Your task to perform on an android device: Open Android settings Image 0: 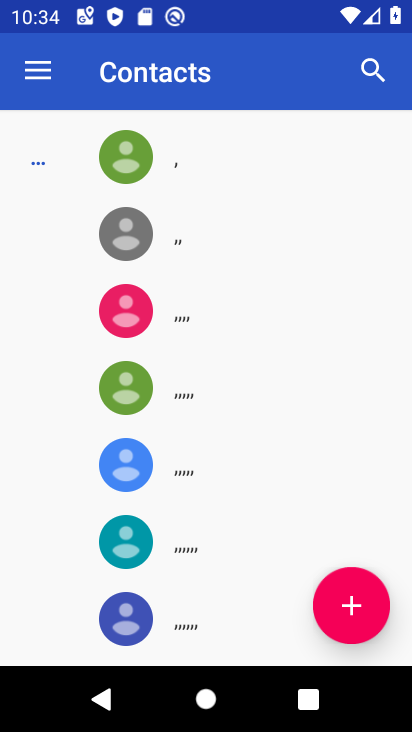
Step 0: press home button
Your task to perform on an android device: Open Android settings Image 1: 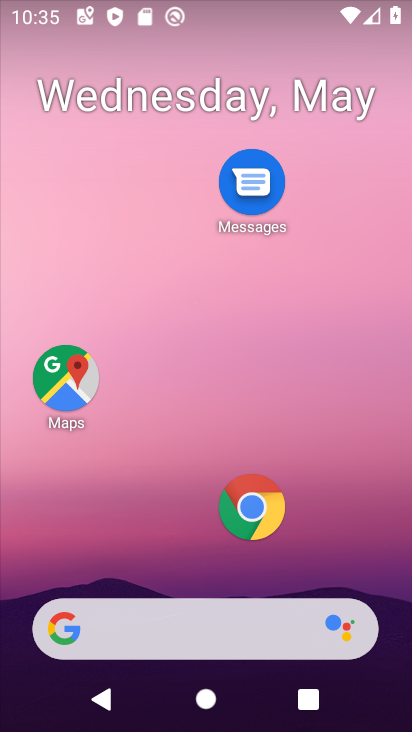
Step 1: drag from (183, 581) to (240, 108)
Your task to perform on an android device: Open Android settings Image 2: 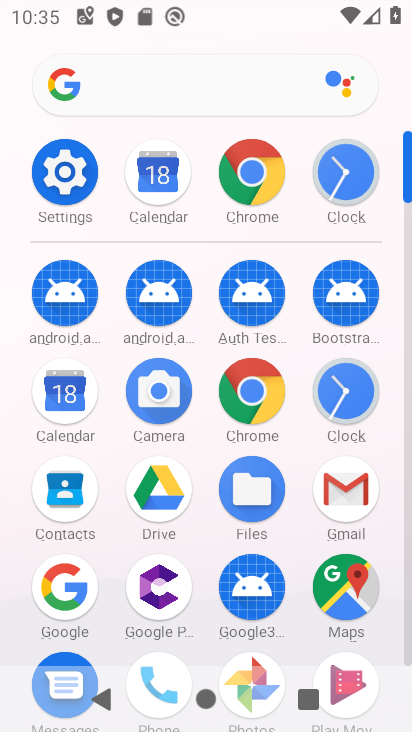
Step 2: click (65, 165)
Your task to perform on an android device: Open Android settings Image 3: 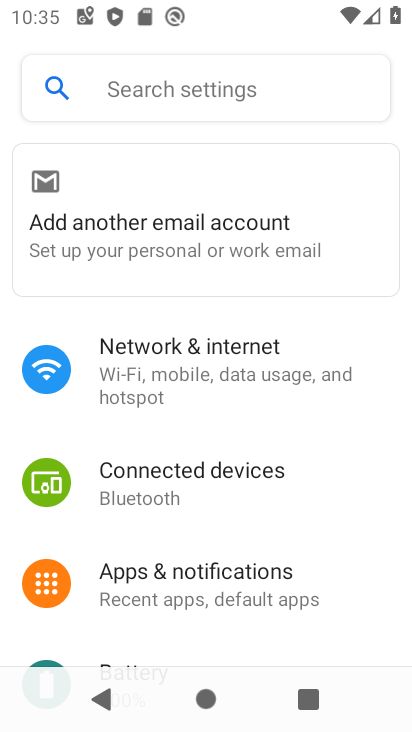
Step 3: drag from (179, 591) to (207, 152)
Your task to perform on an android device: Open Android settings Image 4: 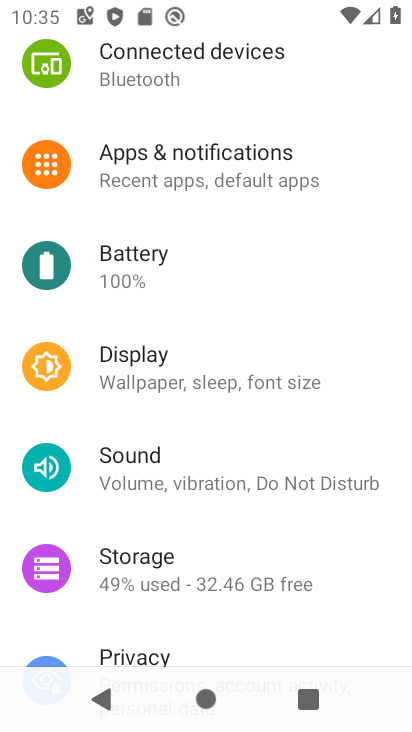
Step 4: drag from (186, 559) to (249, 115)
Your task to perform on an android device: Open Android settings Image 5: 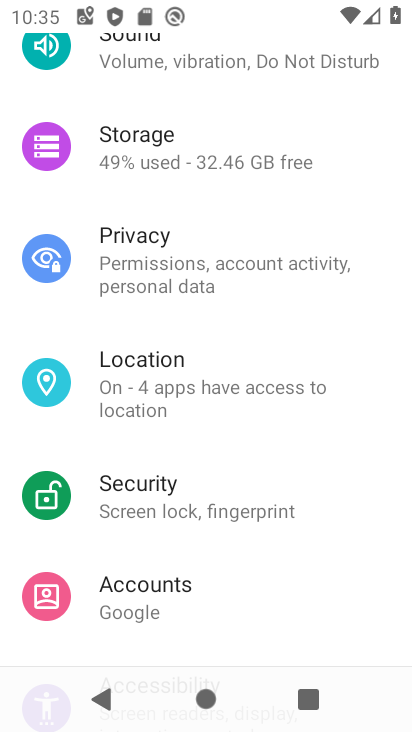
Step 5: drag from (192, 575) to (223, 12)
Your task to perform on an android device: Open Android settings Image 6: 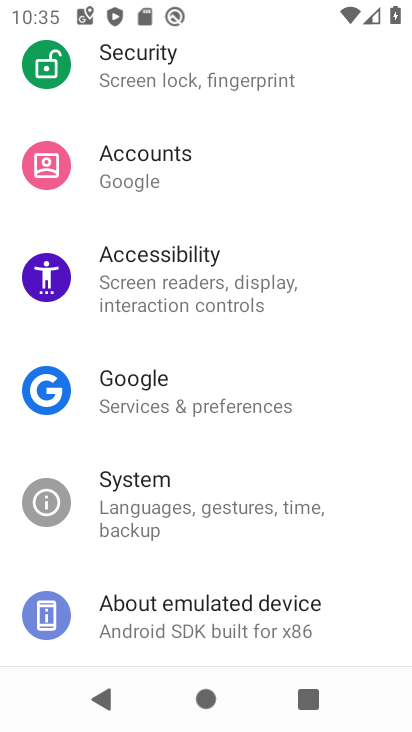
Step 6: drag from (199, 630) to (256, 97)
Your task to perform on an android device: Open Android settings Image 7: 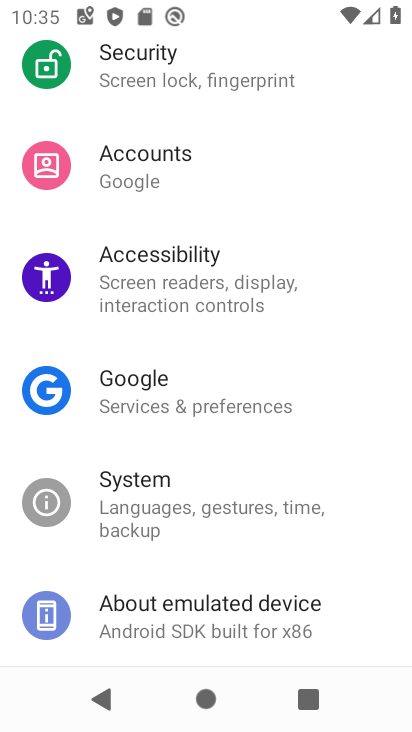
Step 7: click (196, 638)
Your task to perform on an android device: Open Android settings Image 8: 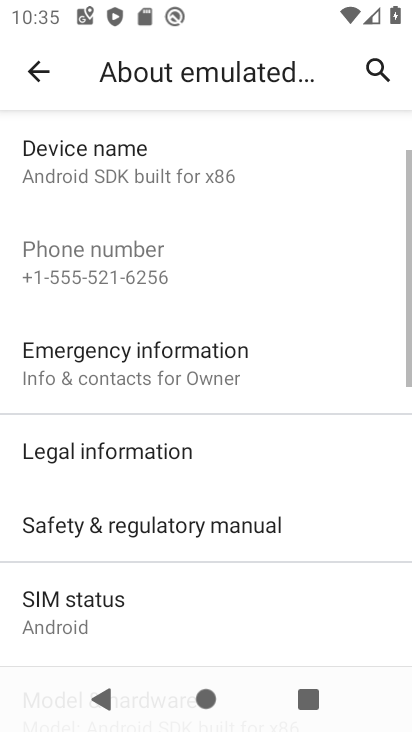
Step 8: drag from (182, 601) to (224, 319)
Your task to perform on an android device: Open Android settings Image 9: 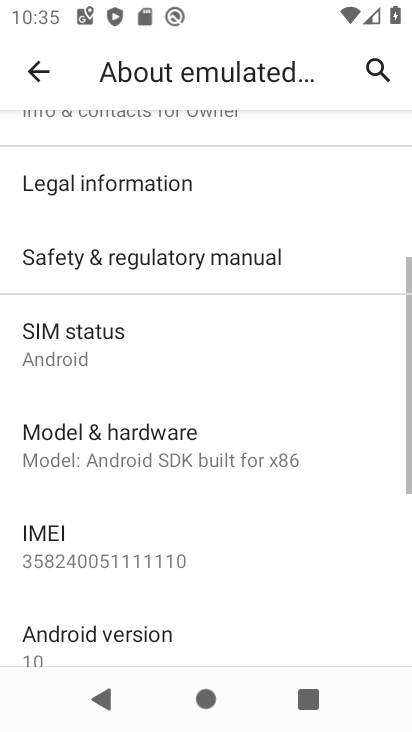
Step 9: click (129, 633)
Your task to perform on an android device: Open Android settings Image 10: 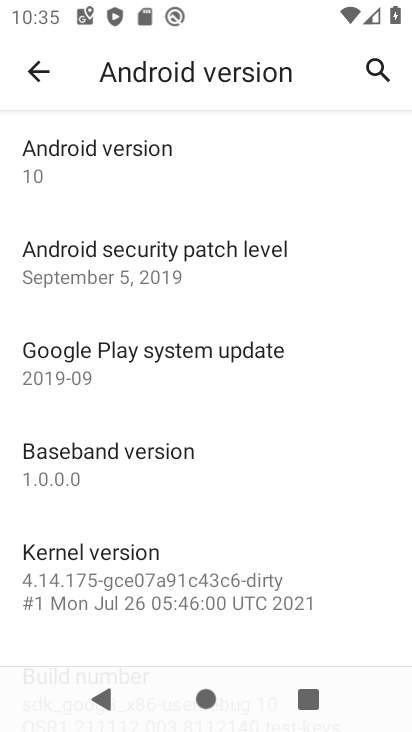
Step 10: task complete